Your task to perform on an android device: Do I have any events today? Image 0: 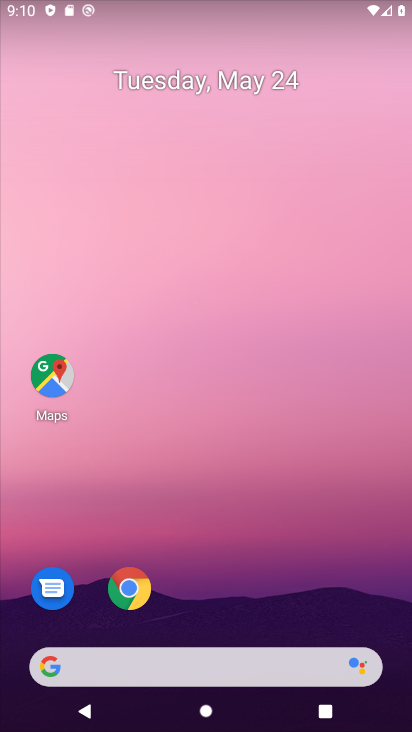
Step 0: drag from (211, 524) to (246, 207)
Your task to perform on an android device: Do I have any events today? Image 1: 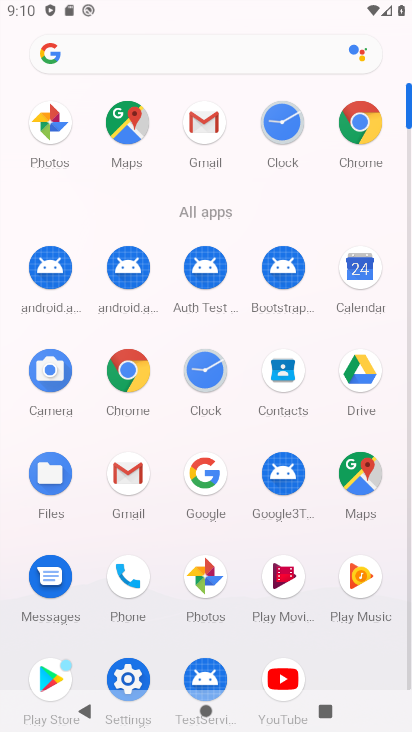
Step 1: click (365, 262)
Your task to perform on an android device: Do I have any events today? Image 2: 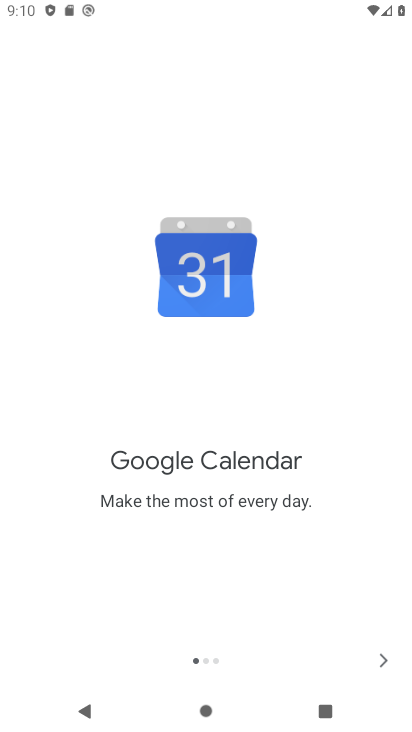
Step 2: click (387, 662)
Your task to perform on an android device: Do I have any events today? Image 3: 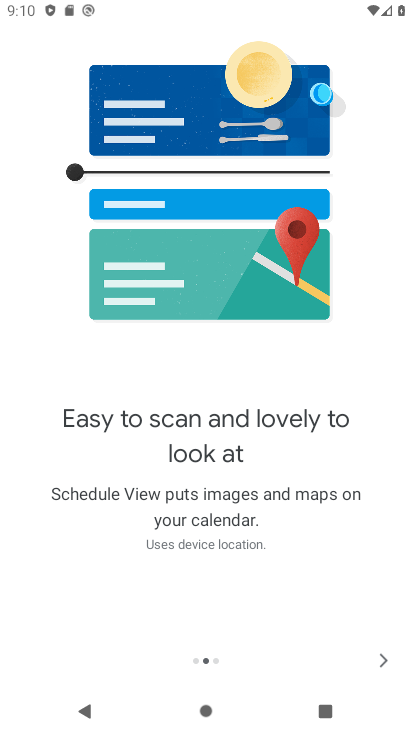
Step 3: click (387, 662)
Your task to perform on an android device: Do I have any events today? Image 4: 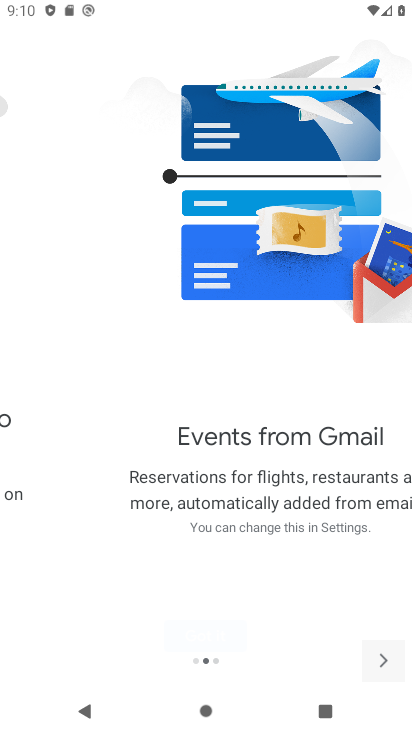
Step 4: click (387, 662)
Your task to perform on an android device: Do I have any events today? Image 5: 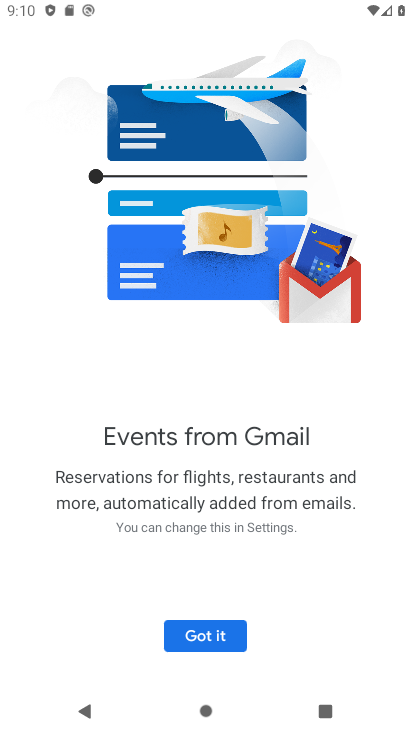
Step 5: click (183, 624)
Your task to perform on an android device: Do I have any events today? Image 6: 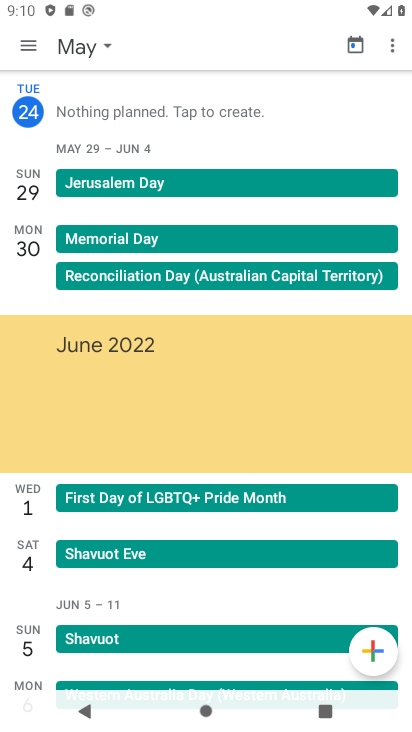
Step 6: drag from (147, 212) to (162, 458)
Your task to perform on an android device: Do I have any events today? Image 7: 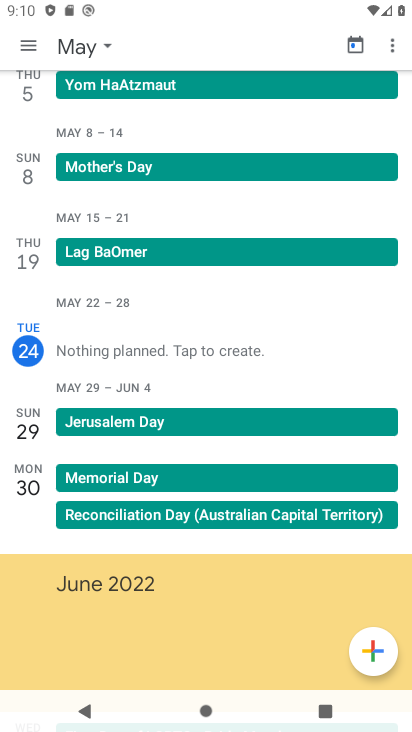
Step 7: click (25, 35)
Your task to perform on an android device: Do I have any events today? Image 8: 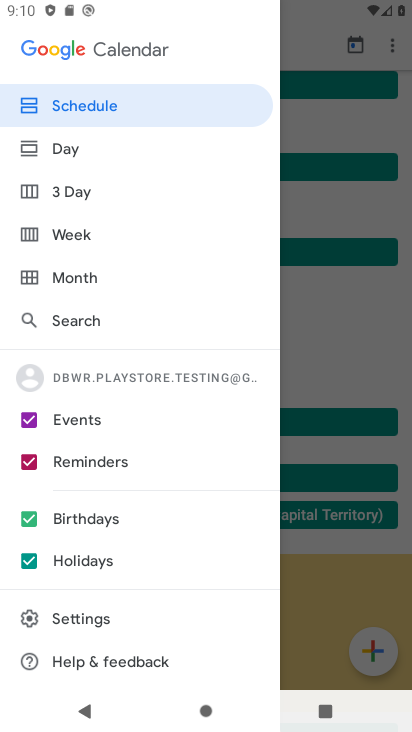
Step 8: click (136, 107)
Your task to perform on an android device: Do I have any events today? Image 9: 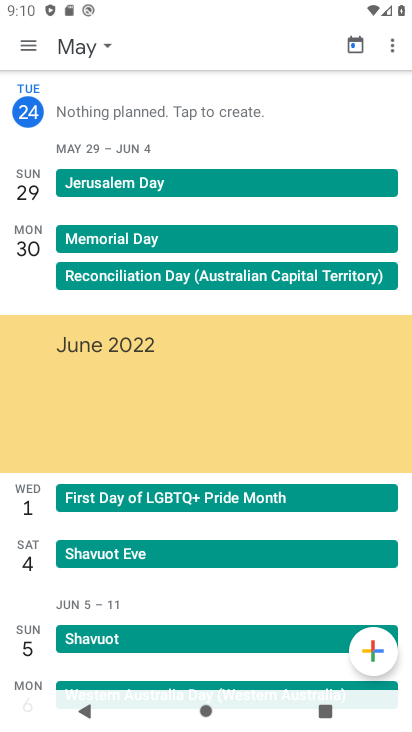
Step 9: task complete